Your task to perform on an android device: Go to network settings Image 0: 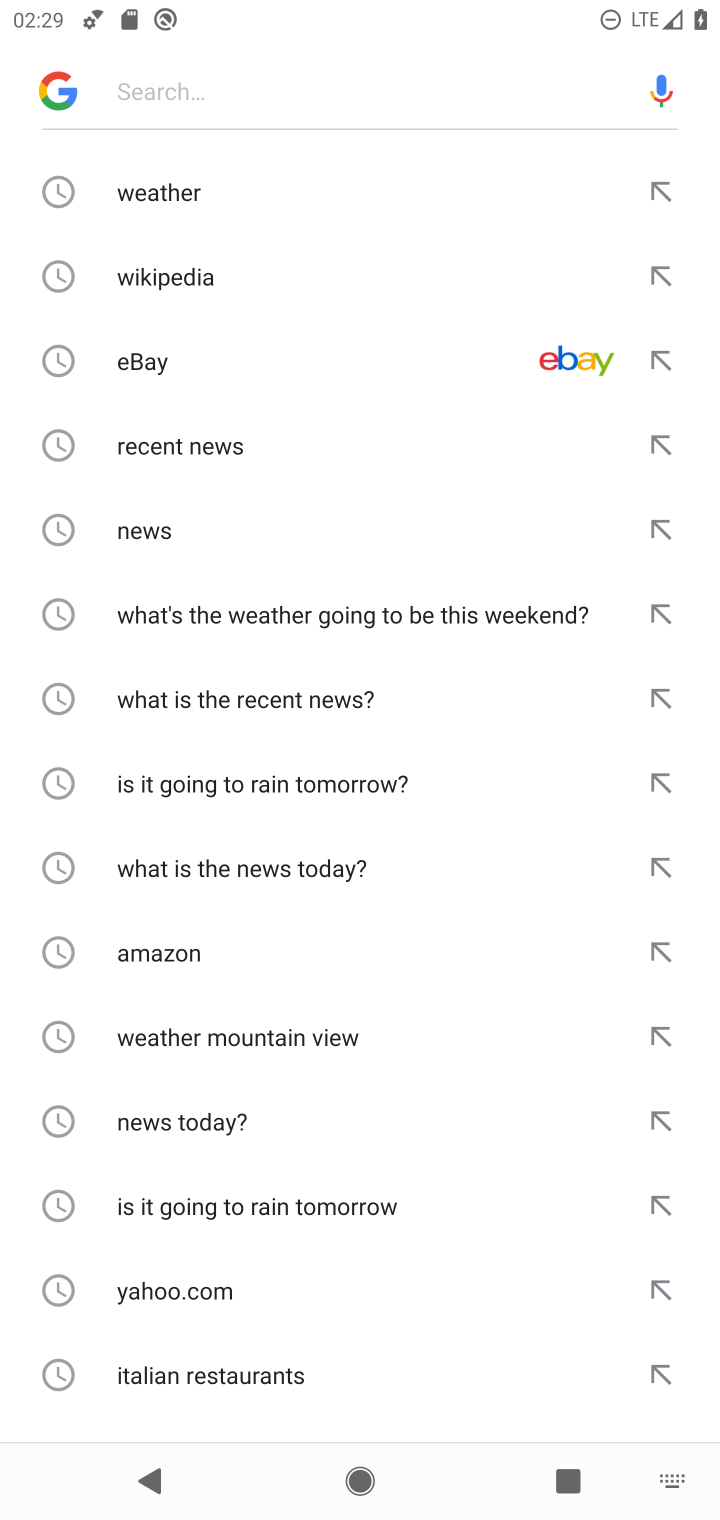
Step 0: press home button
Your task to perform on an android device: Go to network settings Image 1: 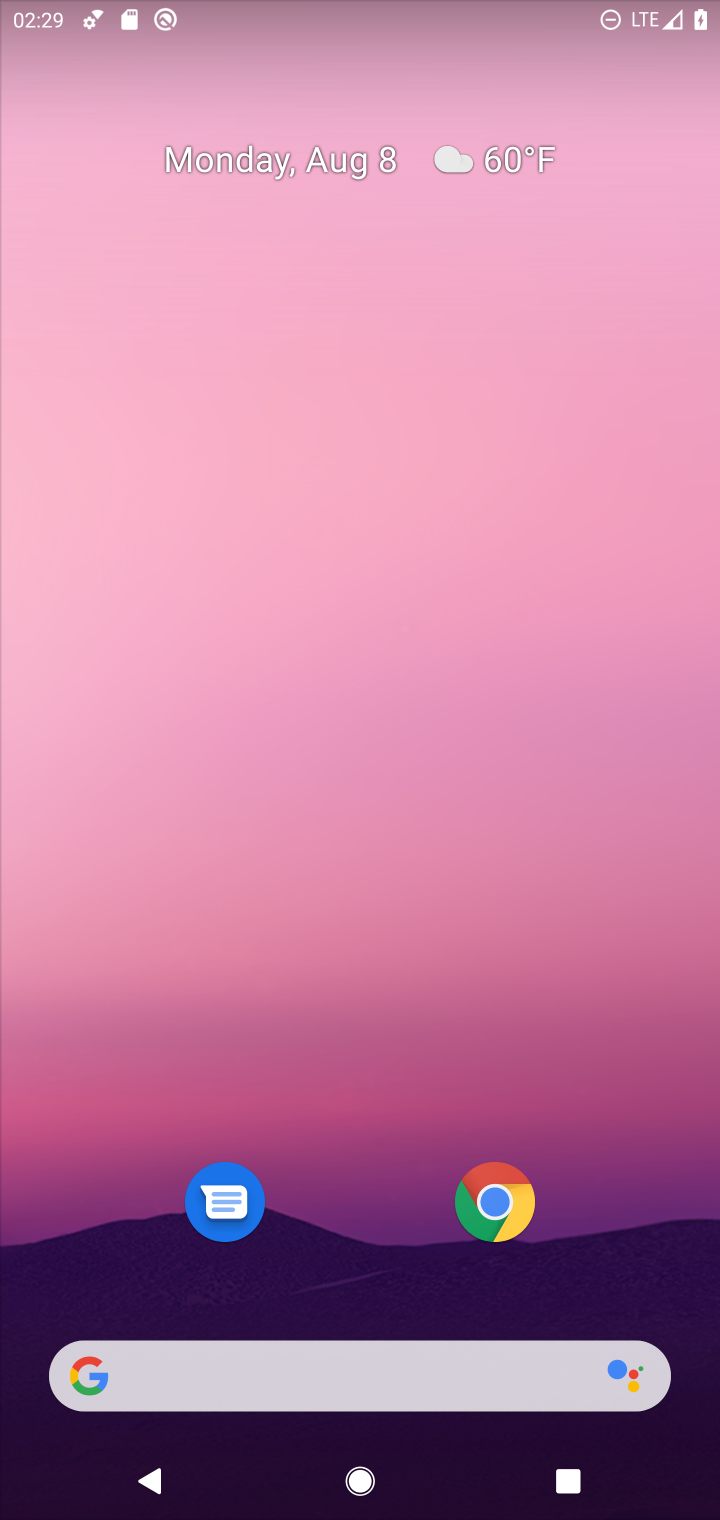
Step 1: press home button
Your task to perform on an android device: Go to network settings Image 2: 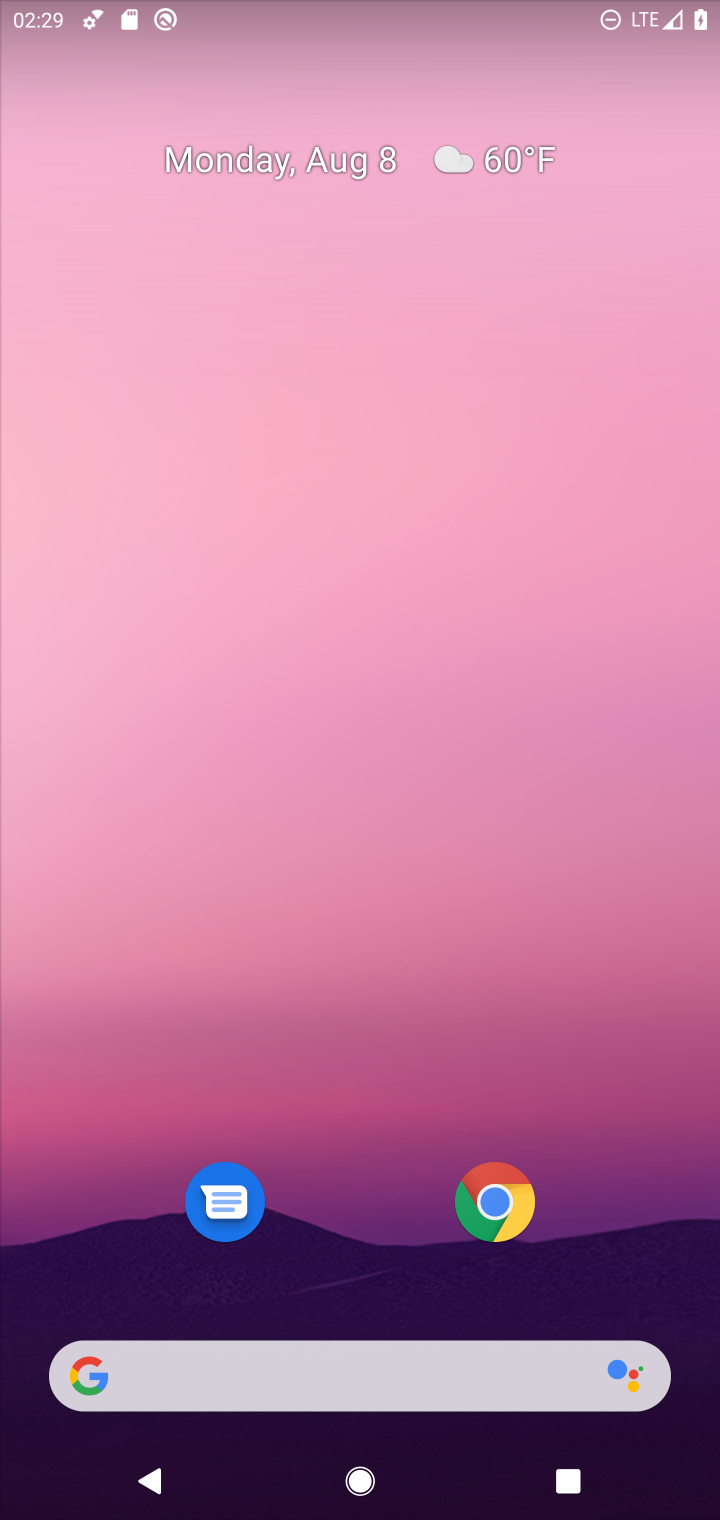
Step 2: drag from (619, 1219) to (596, 322)
Your task to perform on an android device: Go to network settings Image 3: 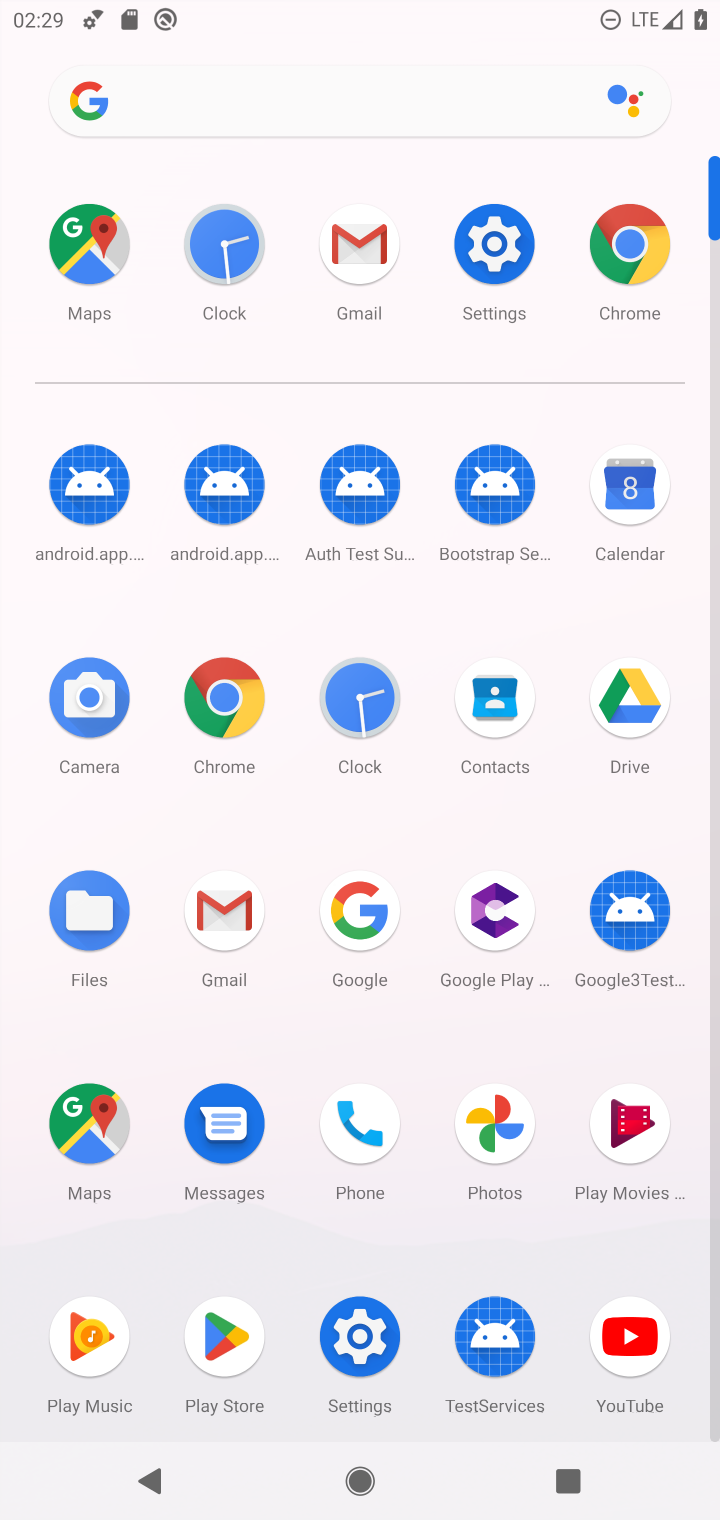
Step 3: click (488, 257)
Your task to perform on an android device: Go to network settings Image 4: 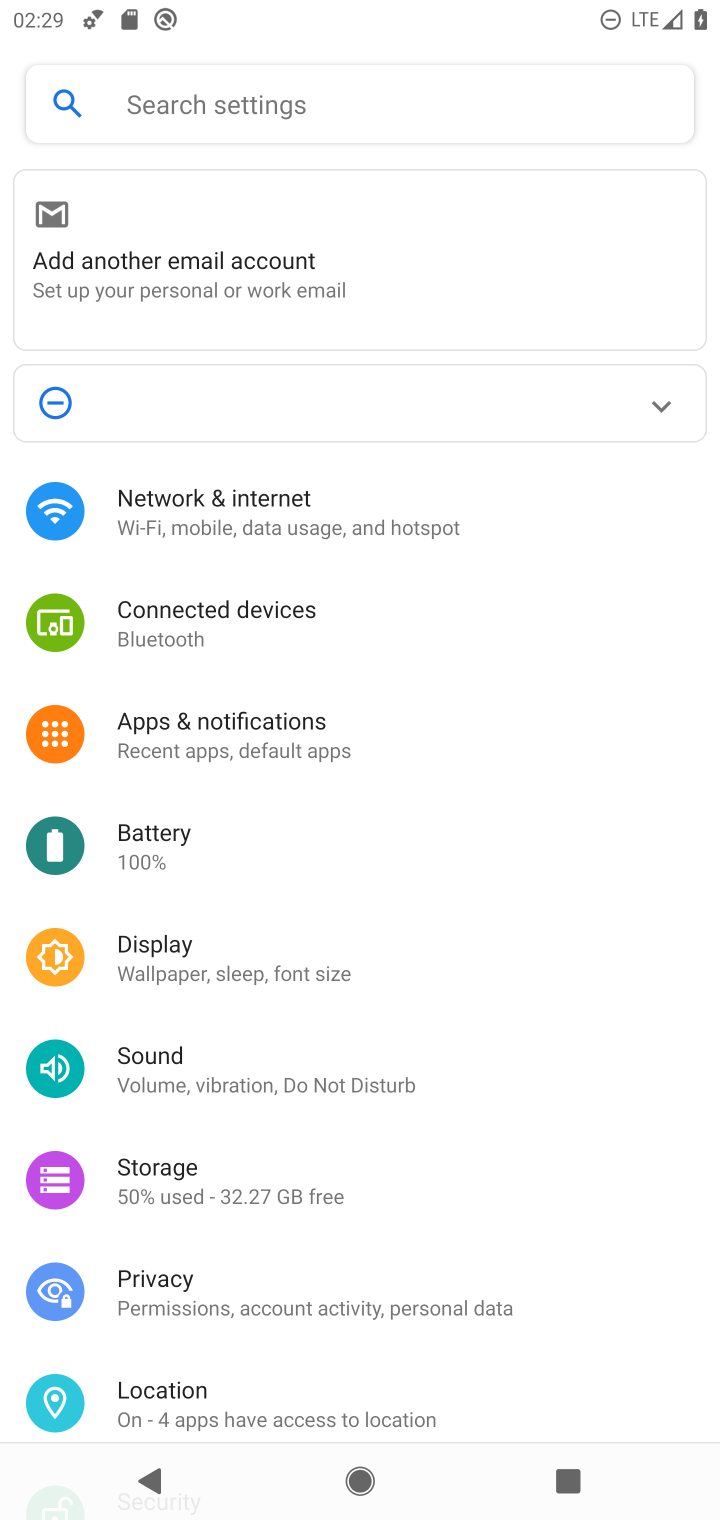
Step 4: drag from (596, 908) to (575, 458)
Your task to perform on an android device: Go to network settings Image 5: 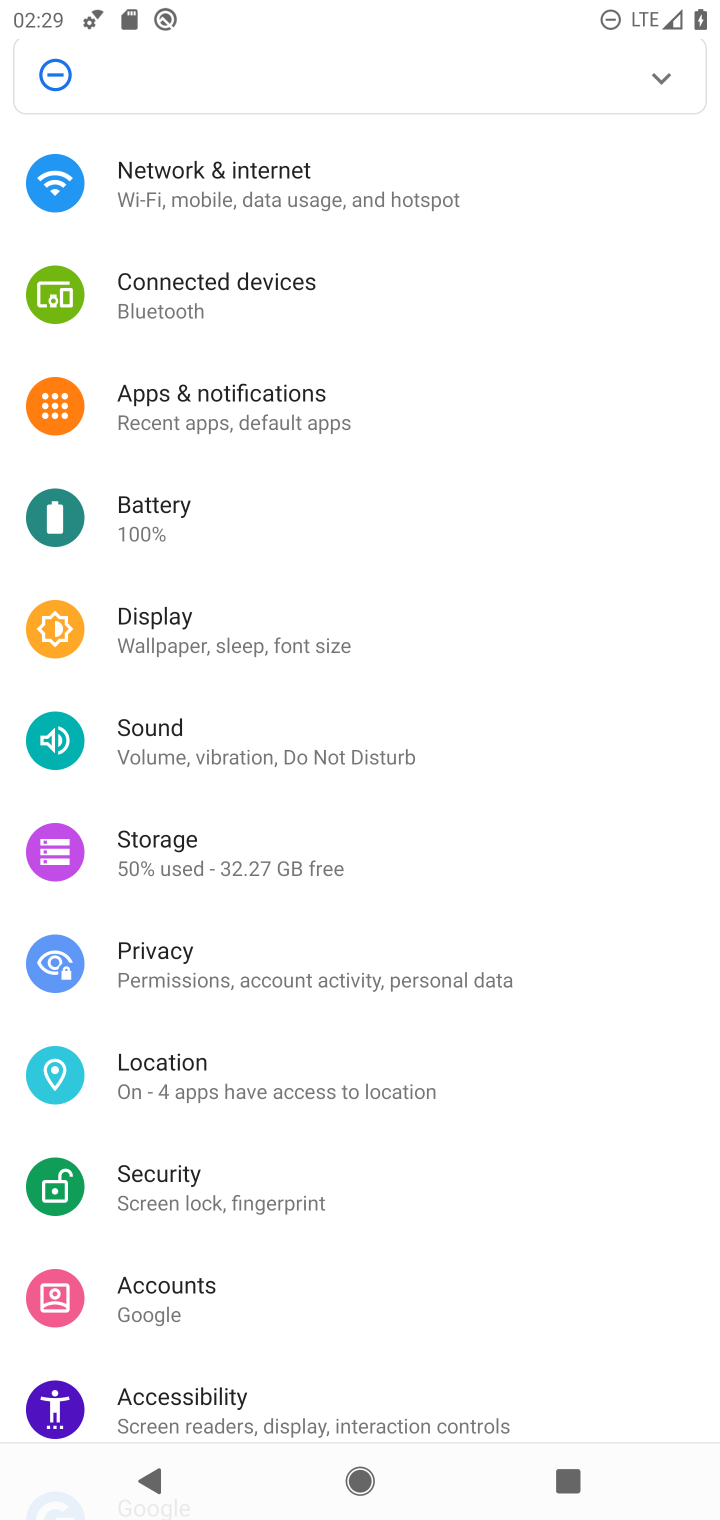
Step 5: drag from (490, 1186) to (544, 591)
Your task to perform on an android device: Go to network settings Image 6: 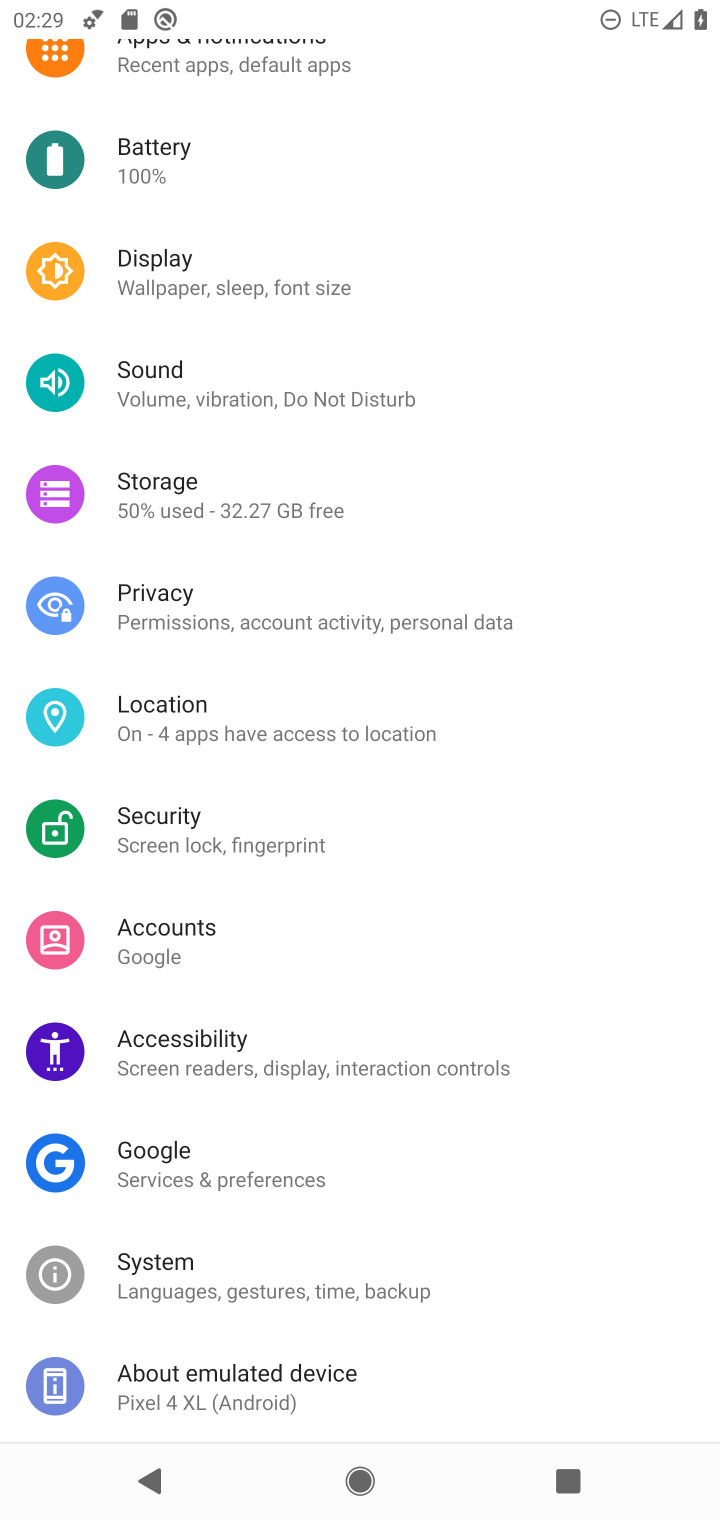
Step 6: drag from (630, 443) to (632, 812)
Your task to perform on an android device: Go to network settings Image 7: 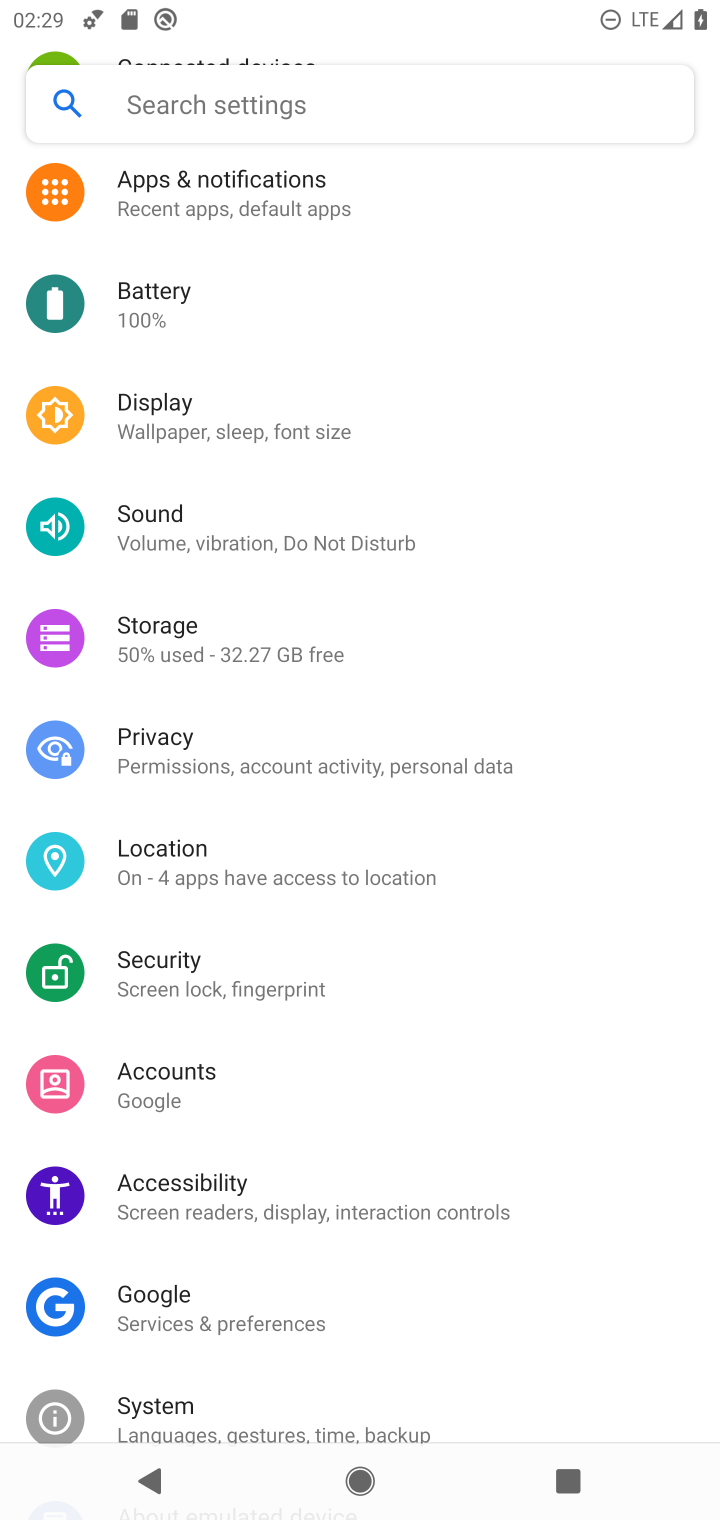
Step 7: drag from (609, 262) to (635, 678)
Your task to perform on an android device: Go to network settings Image 8: 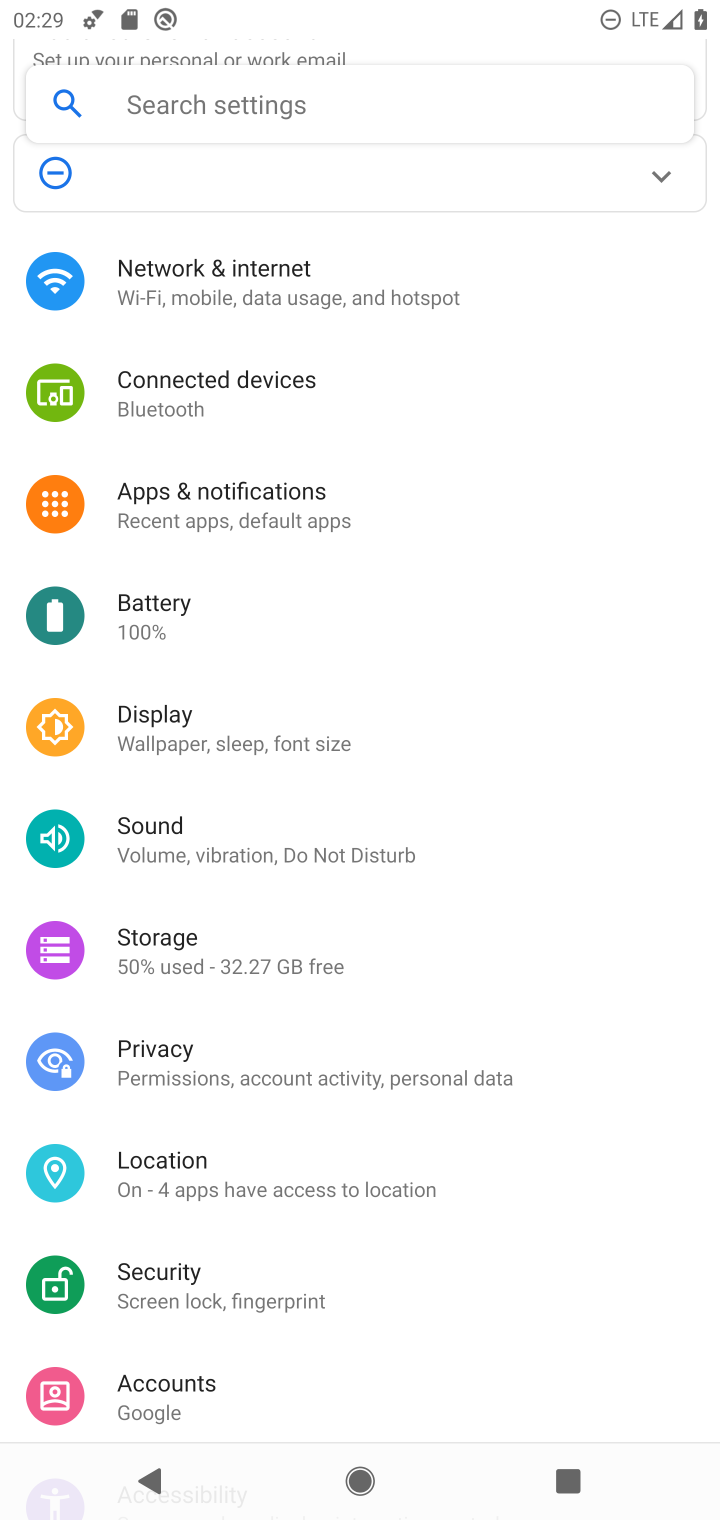
Step 8: click (453, 255)
Your task to perform on an android device: Go to network settings Image 9: 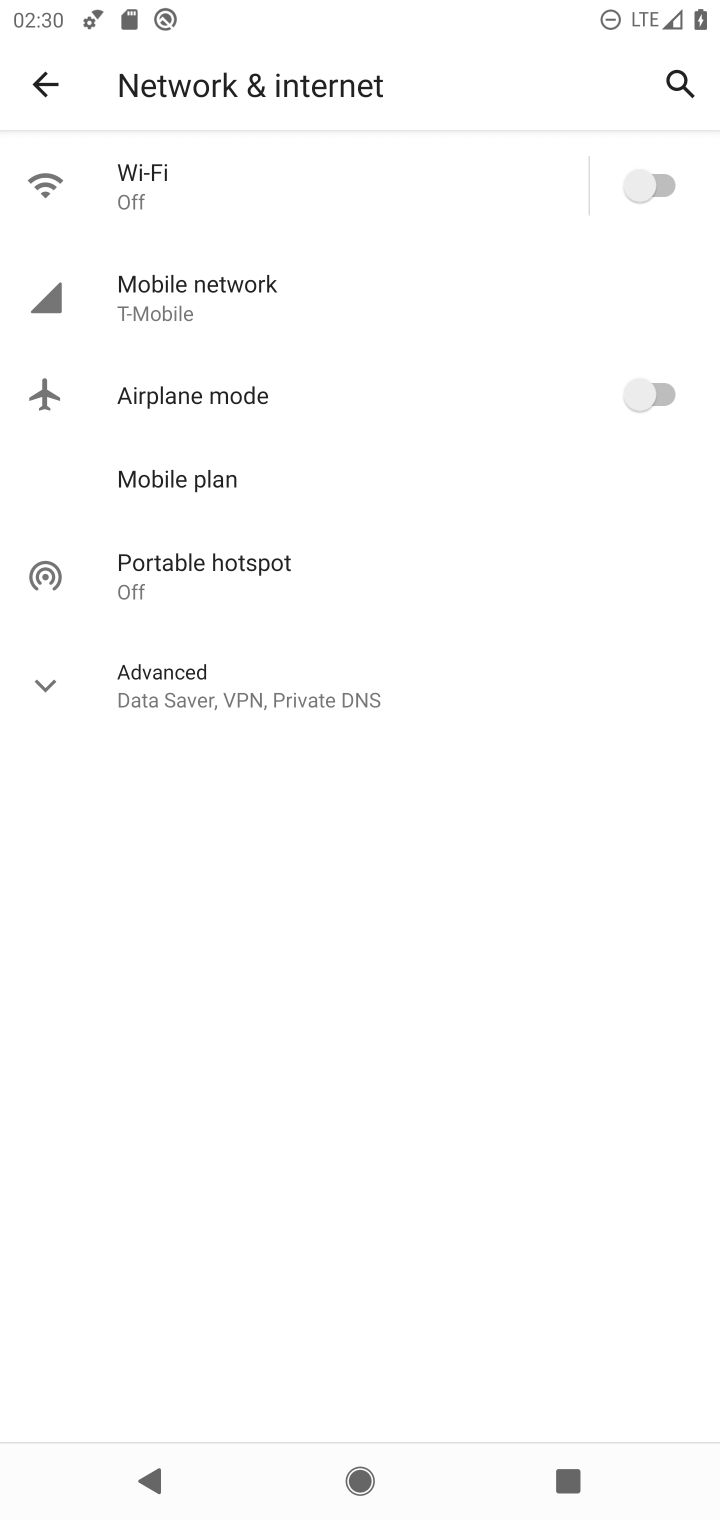
Step 9: task complete